Your task to perform on an android device: turn on sleep mode Image 0: 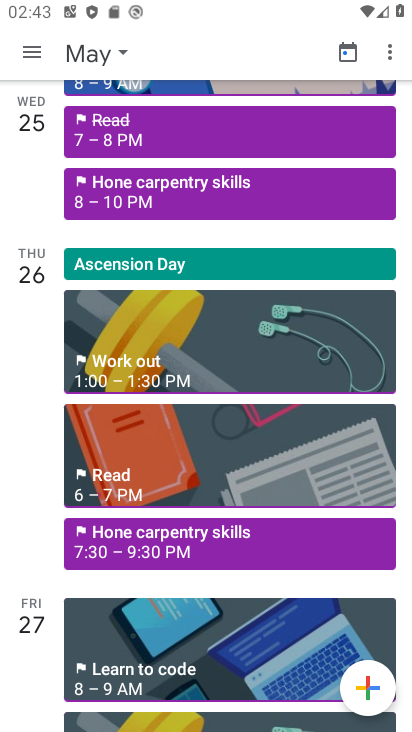
Step 0: press home button
Your task to perform on an android device: turn on sleep mode Image 1: 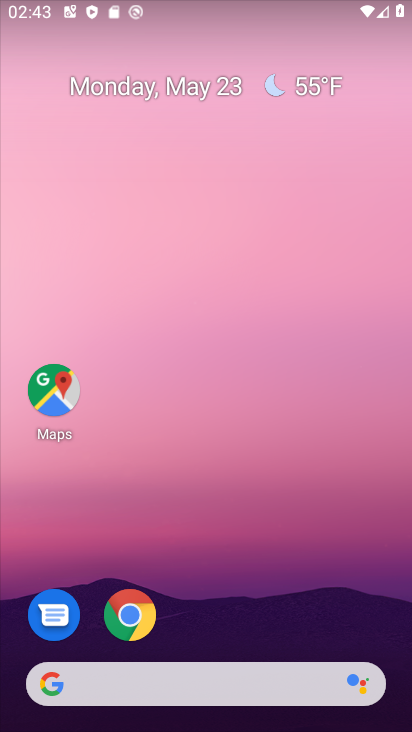
Step 1: drag from (321, 628) to (309, 241)
Your task to perform on an android device: turn on sleep mode Image 2: 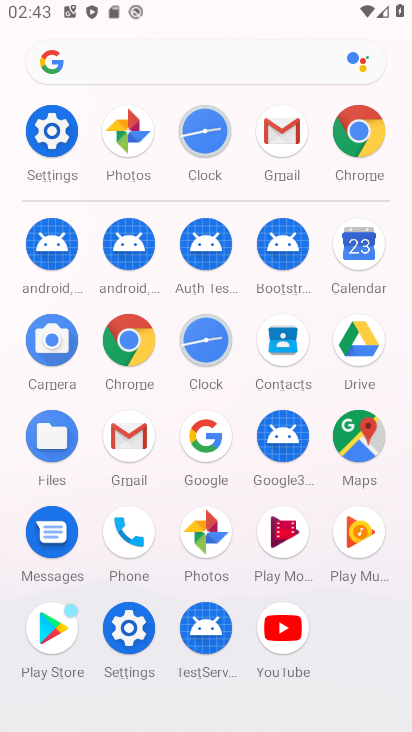
Step 2: click (126, 636)
Your task to perform on an android device: turn on sleep mode Image 3: 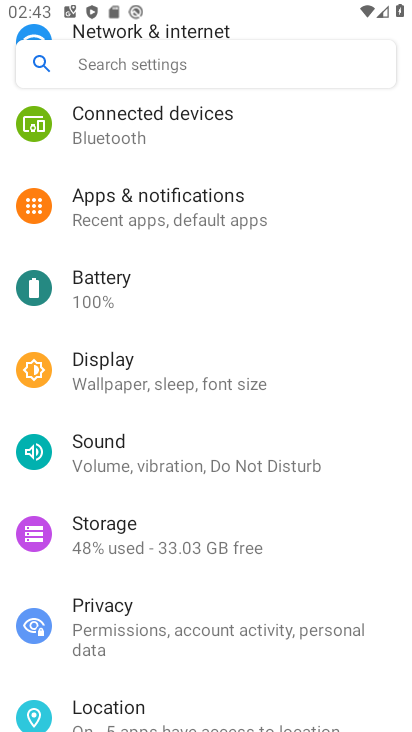
Step 3: drag from (375, 536) to (374, 446)
Your task to perform on an android device: turn on sleep mode Image 4: 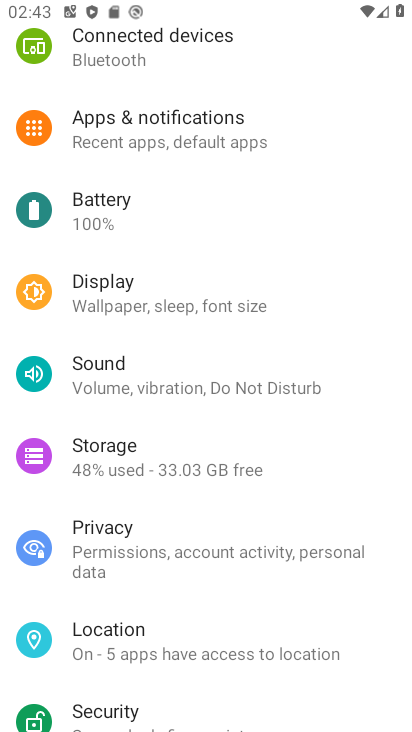
Step 4: drag from (381, 613) to (371, 499)
Your task to perform on an android device: turn on sleep mode Image 5: 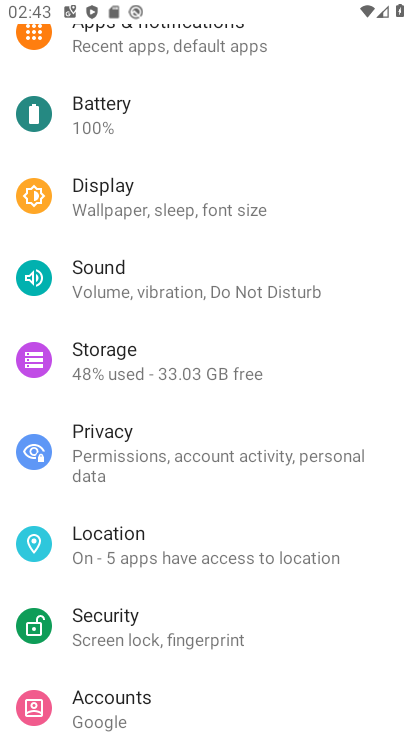
Step 5: drag from (360, 632) to (371, 515)
Your task to perform on an android device: turn on sleep mode Image 6: 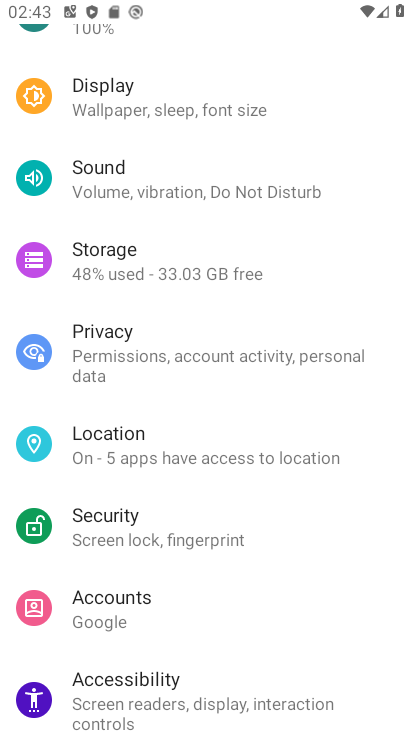
Step 6: drag from (349, 652) to (350, 528)
Your task to perform on an android device: turn on sleep mode Image 7: 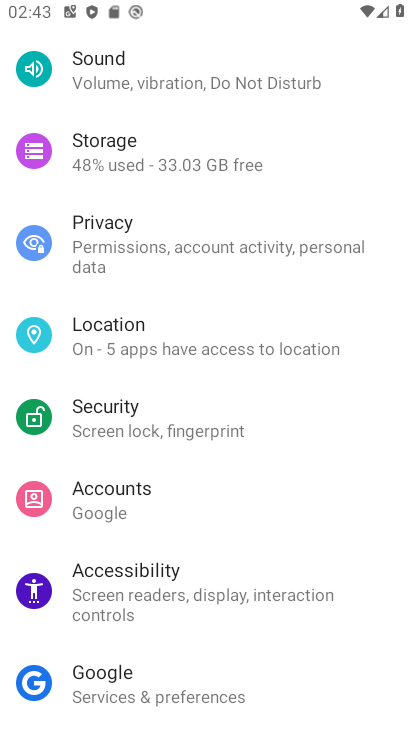
Step 7: drag from (325, 650) to (316, 540)
Your task to perform on an android device: turn on sleep mode Image 8: 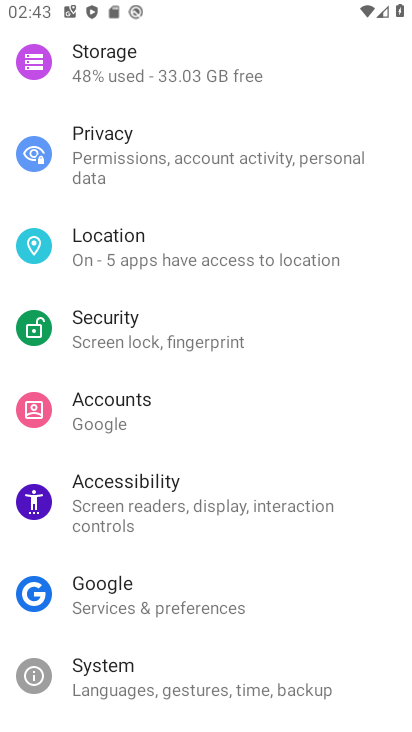
Step 8: drag from (323, 650) to (340, 539)
Your task to perform on an android device: turn on sleep mode Image 9: 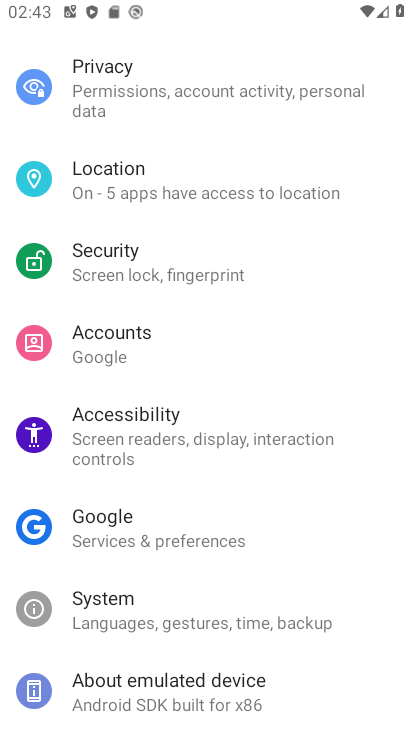
Step 9: drag from (349, 479) to (330, 570)
Your task to perform on an android device: turn on sleep mode Image 10: 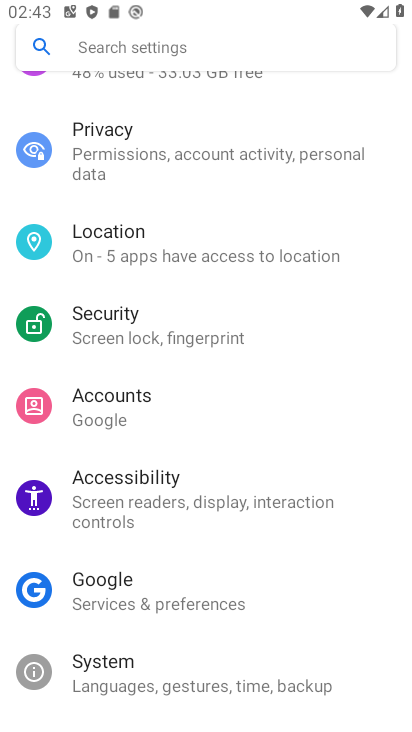
Step 10: drag from (352, 439) to (342, 550)
Your task to perform on an android device: turn on sleep mode Image 11: 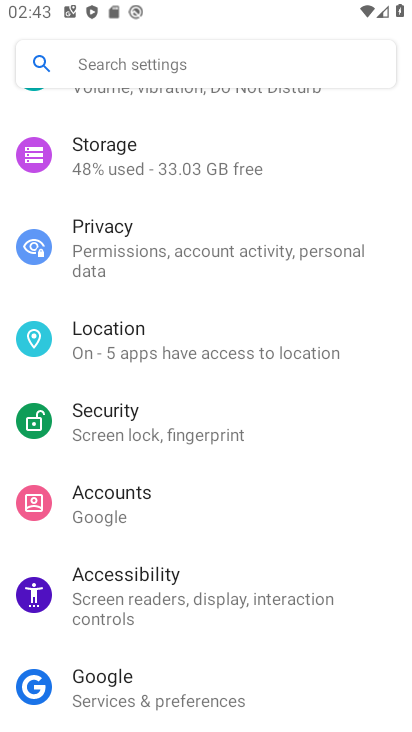
Step 11: drag from (349, 413) to (339, 495)
Your task to perform on an android device: turn on sleep mode Image 12: 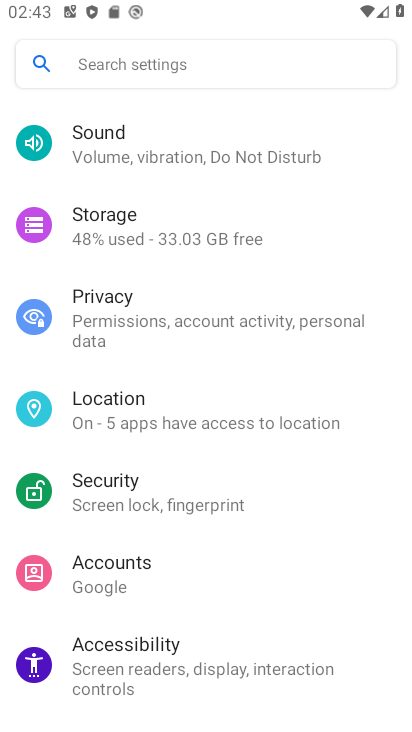
Step 12: drag from (330, 373) to (337, 468)
Your task to perform on an android device: turn on sleep mode Image 13: 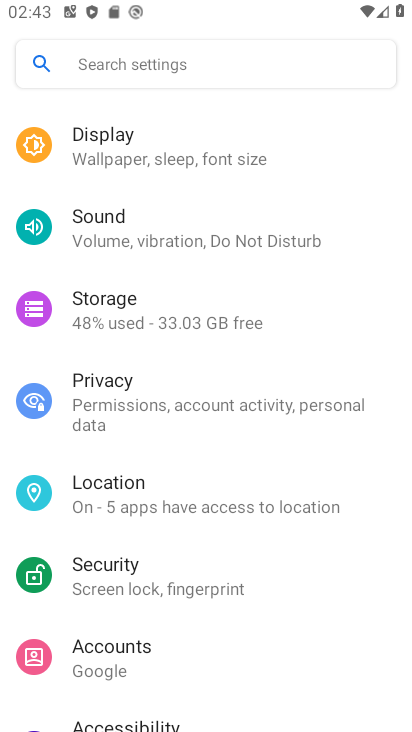
Step 13: drag from (356, 357) to (377, 461)
Your task to perform on an android device: turn on sleep mode Image 14: 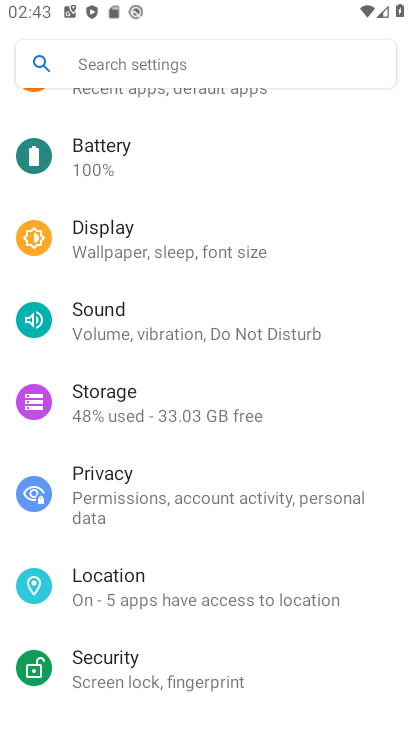
Step 14: drag from (383, 336) to (367, 430)
Your task to perform on an android device: turn on sleep mode Image 15: 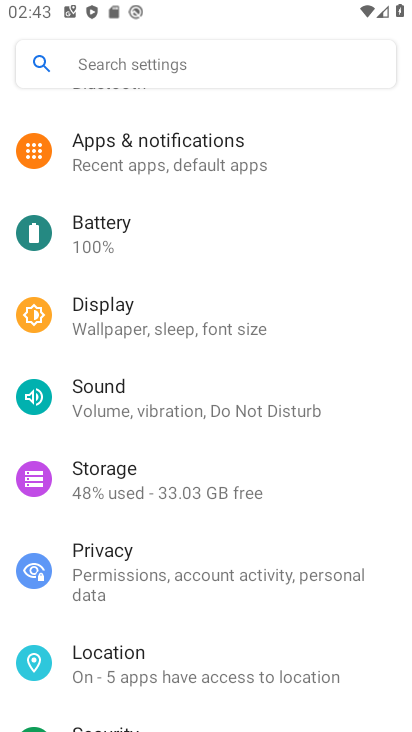
Step 15: drag from (357, 327) to (353, 441)
Your task to perform on an android device: turn on sleep mode Image 16: 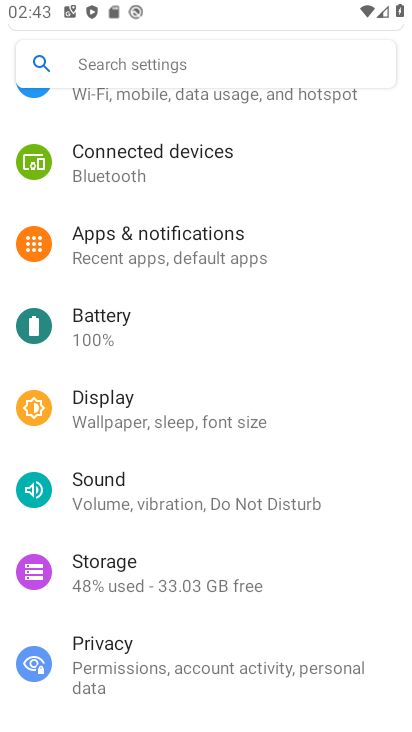
Step 16: drag from (355, 315) to (361, 408)
Your task to perform on an android device: turn on sleep mode Image 17: 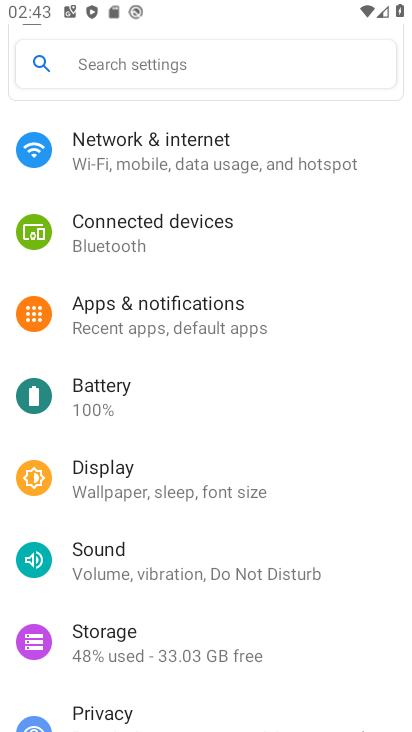
Step 17: drag from (346, 272) to (335, 368)
Your task to perform on an android device: turn on sleep mode Image 18: 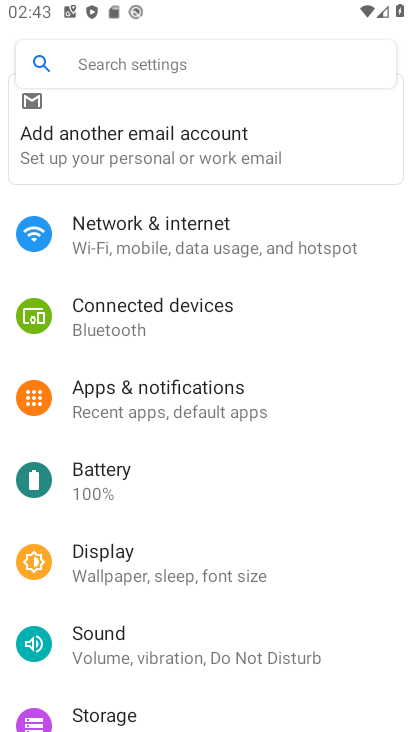
Step 18: drag from (318, 484) to (332, 377)
Your task to perform on an android device: turn on sleep mode Image 19: 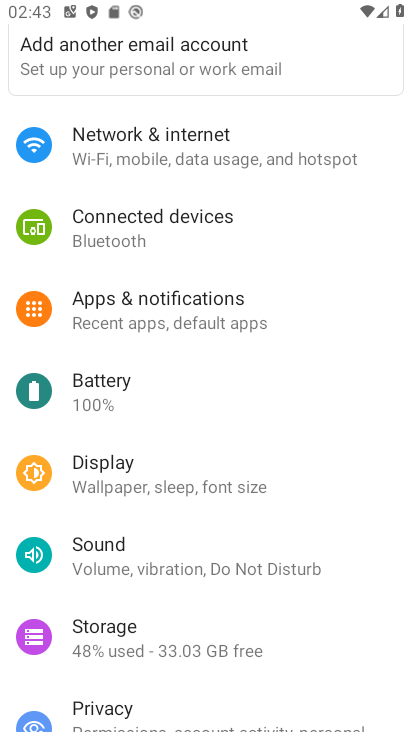
Step 19: click (305, 471)
Your task to perform on an android device: turn on sleep mode Image 20: 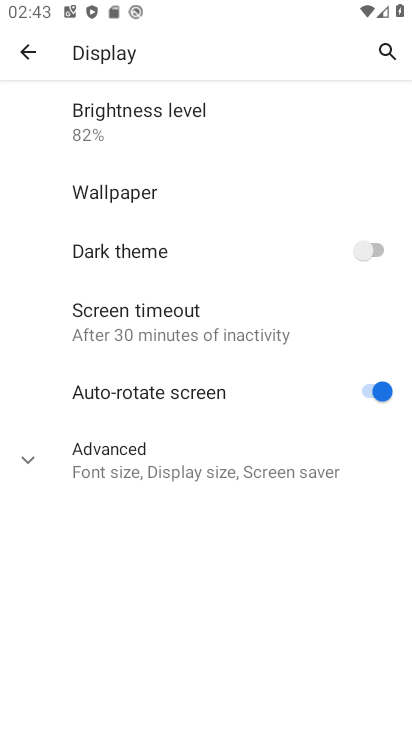
Step 20: click (305, 471)
Your task to perform on an android device: turn on sleep mode Image 21: 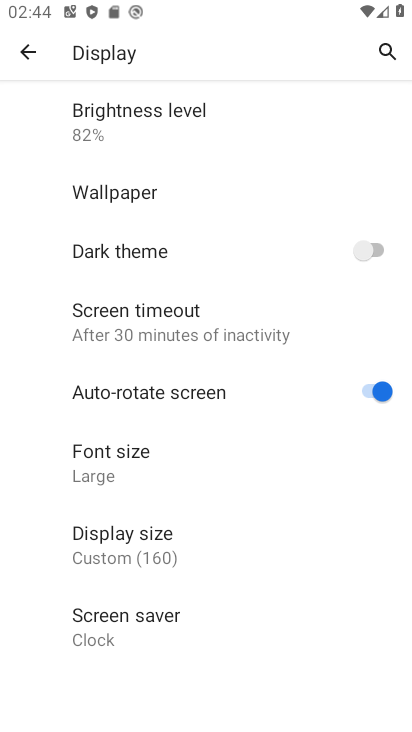
Step 21: task complete